Your task to perform on an android device: Empty the shopping cart on newegg.com. Image 0: 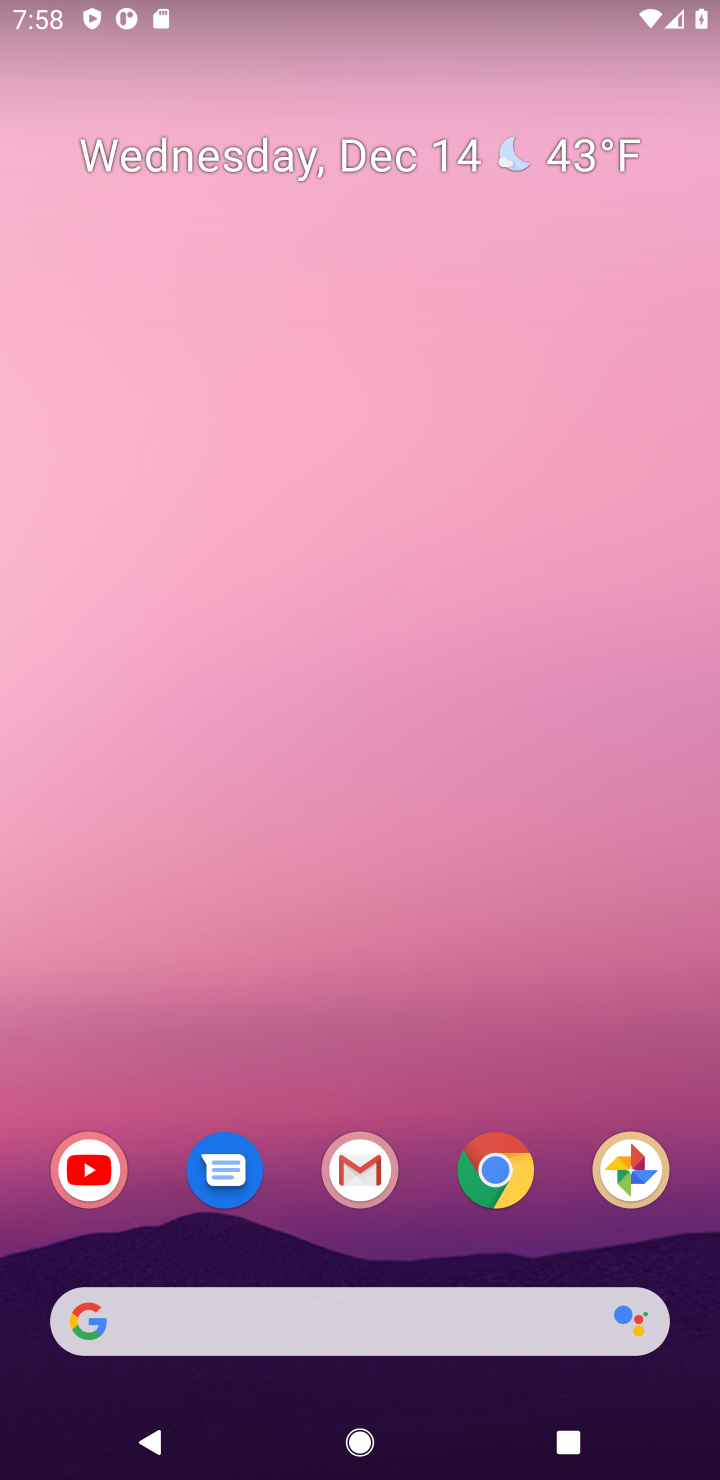
Step 0: click (489, 1174)
Your task to perform on an android device: Empty the shopping cart on newegg.com. Image 1: 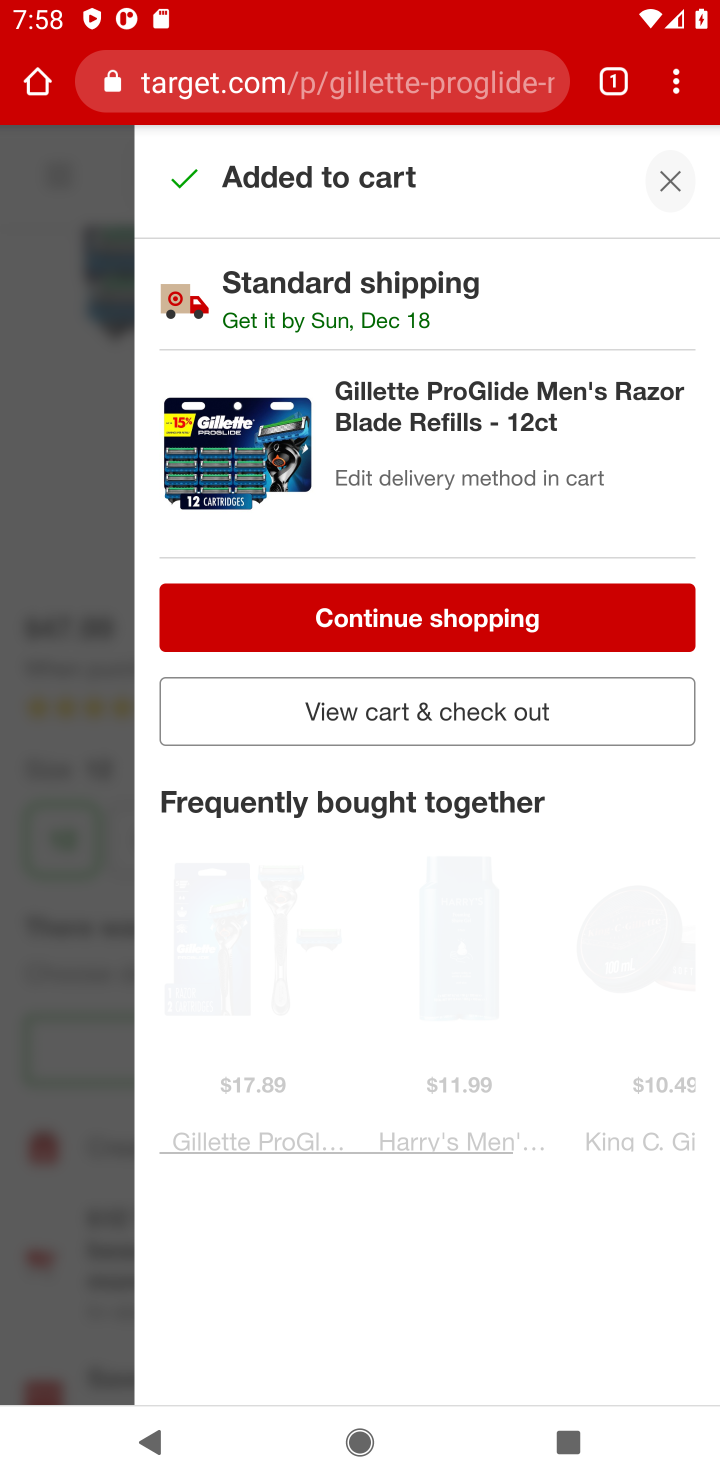
Step 1: click (300, 86)
Your task to perform on an android device: Empty the shopping cart on newegg.com. Image 2: 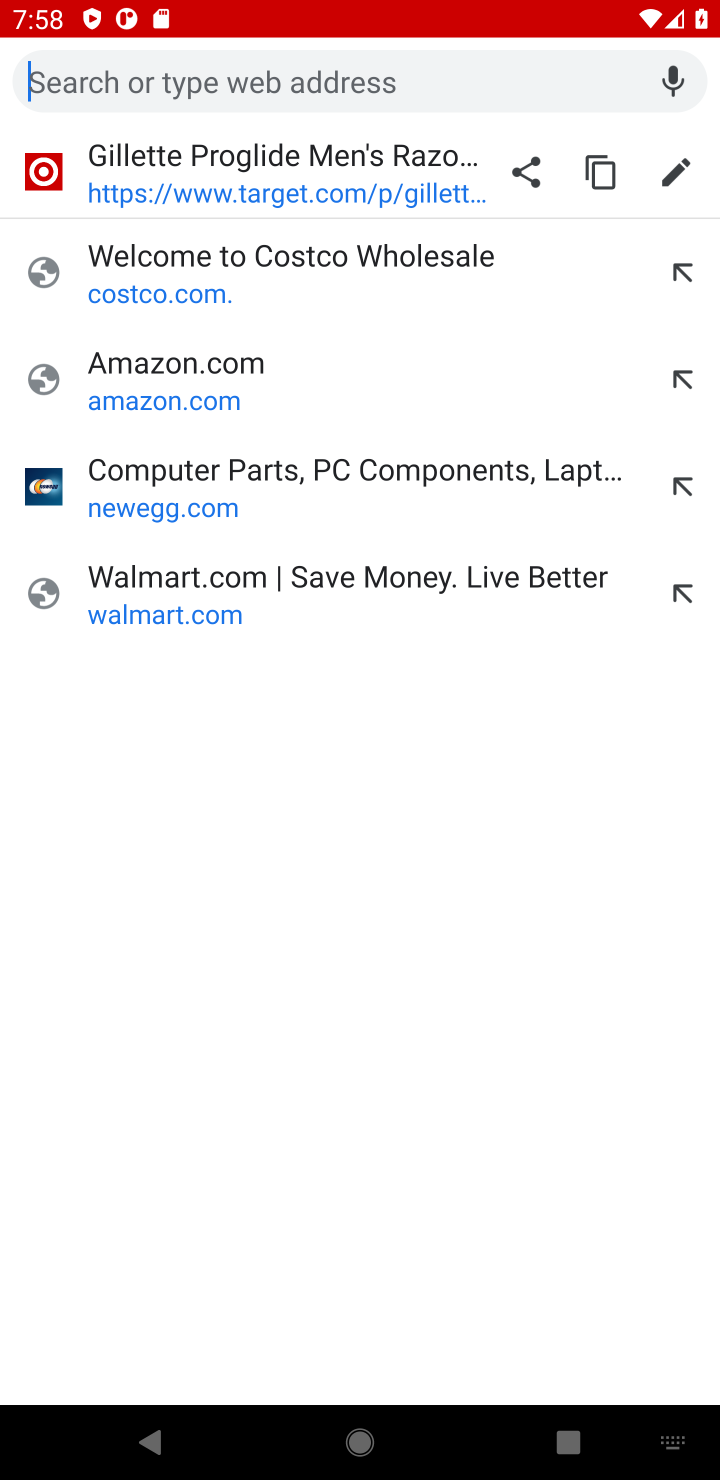
Step 2: click (287, 484)
Your task to perform on an android device: Empty the shopping cart on newegg.com. Image 3: 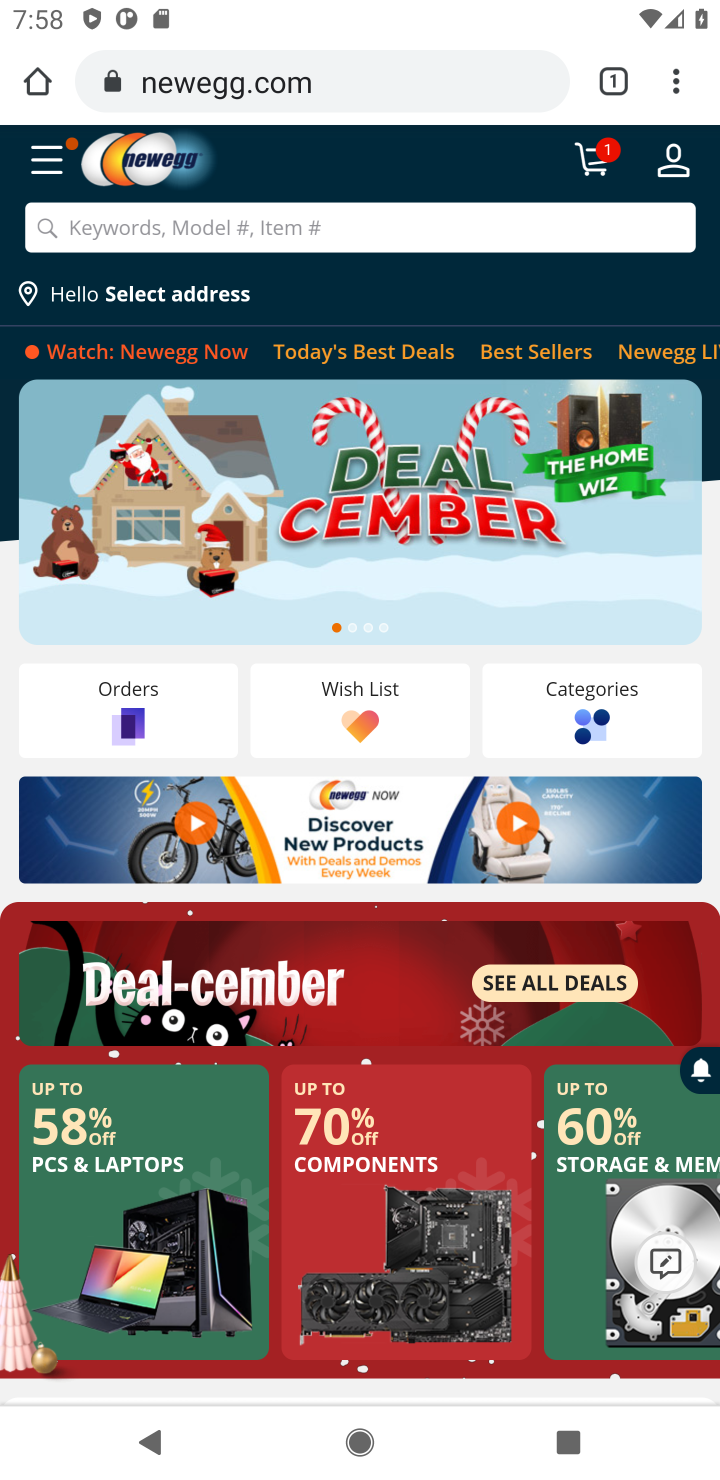
Step 3: click (593, 171)
Your task to perform on an android device: Empty the shopping cart on newegg.com. Image 4: 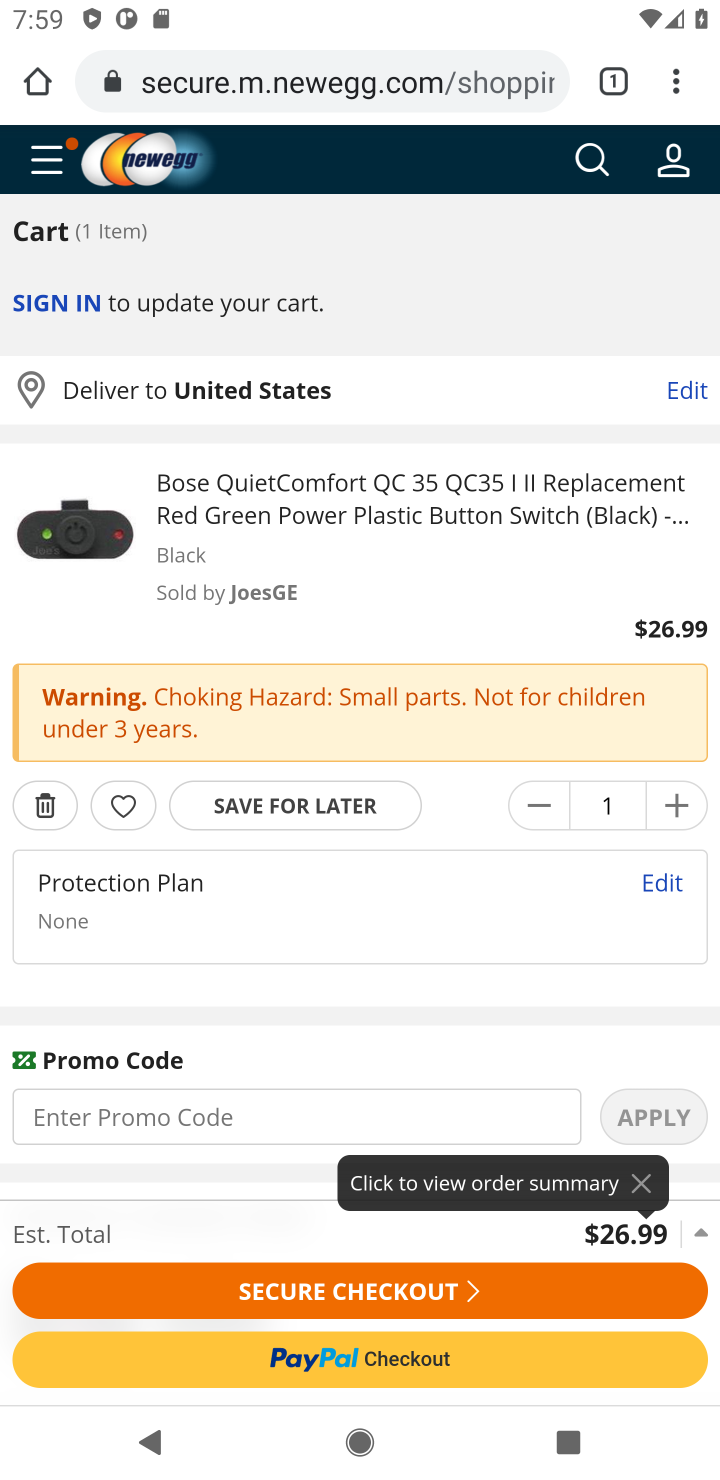
Step 4: click (39, 804)
Your task to perform on an android device: Empty the shopping cart on newegg.com. Image 5: 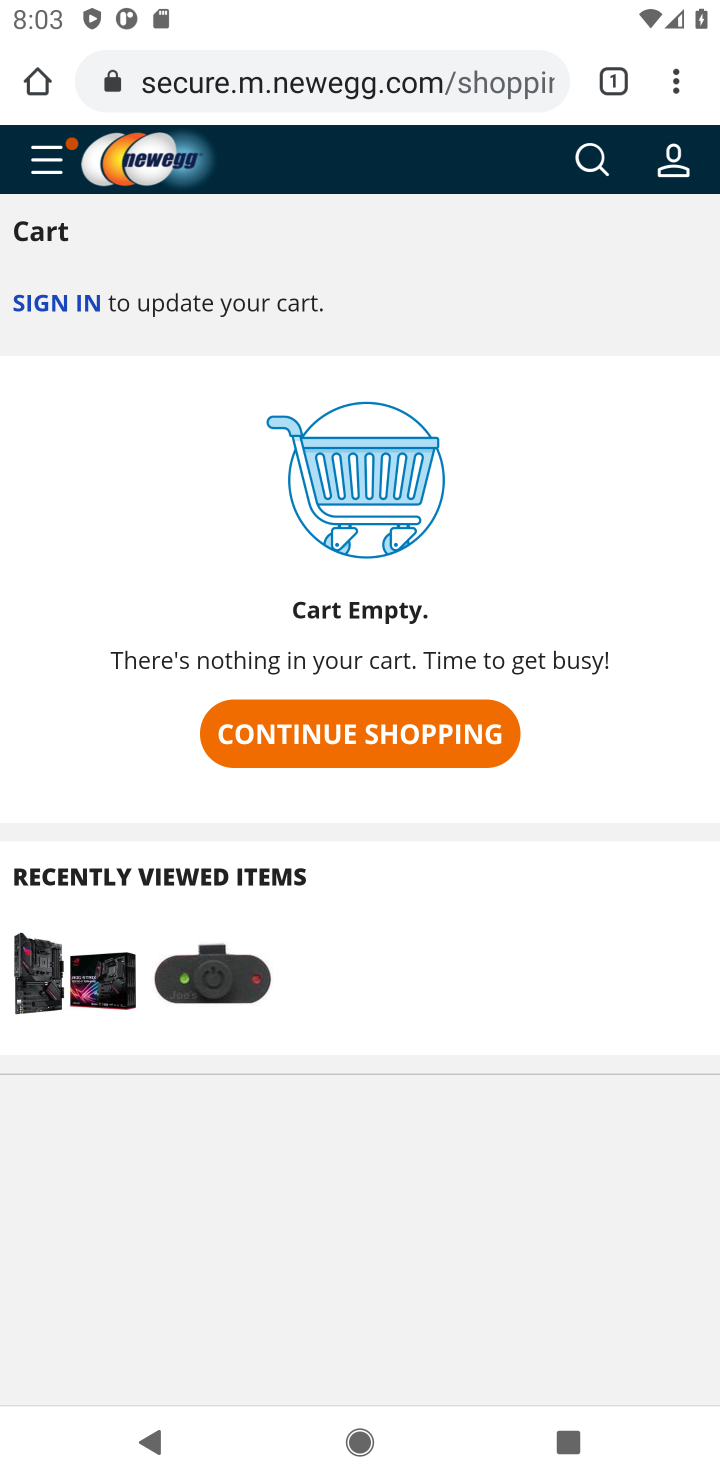
Step 5: task complete